Your task to perform on an android device: find photos in the google photos app Image 0: 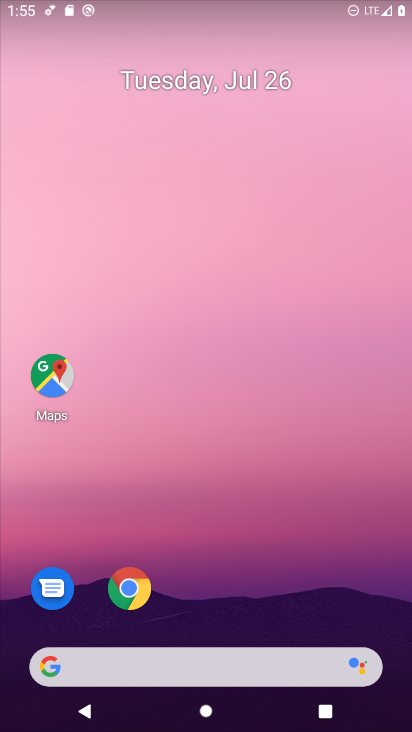
Step 0: drag from (231, 640) to (203, 255)
Your task to perform on an android device: find photos in the google photos app Image 1: 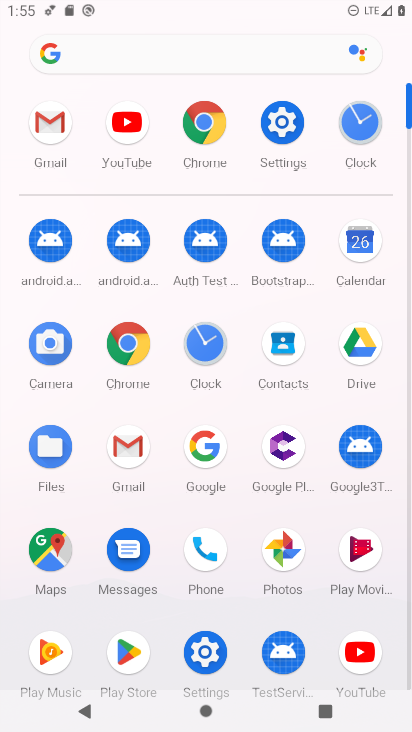
Step 1: click (287, 556)
Your task to perform on an android device: find photos in the google photos app Image 2: 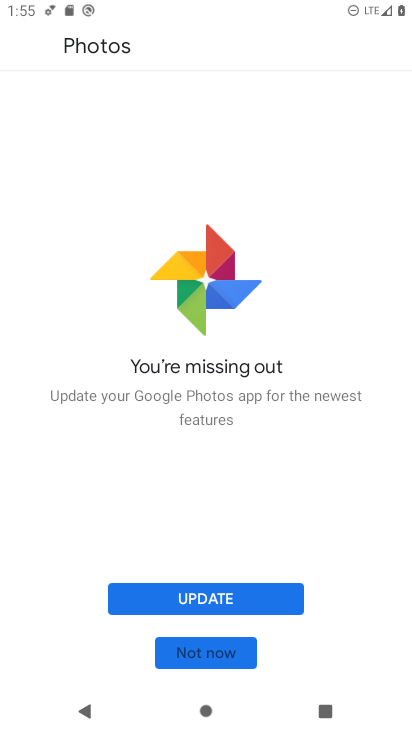
Step 2: click (167, 654)
Your task to perform on an android device: find photos in the google photos app Image 3: 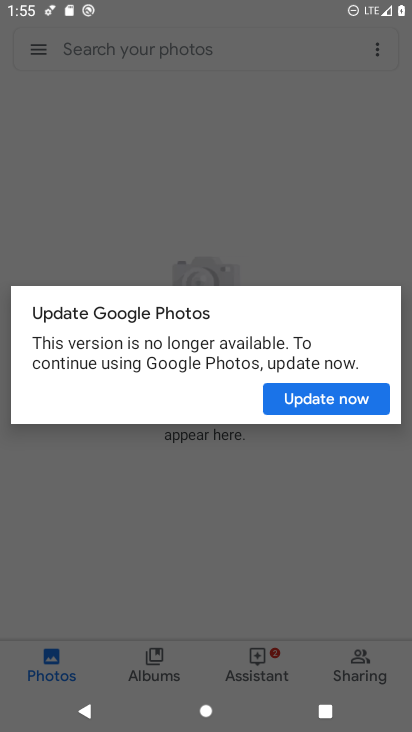
Step 3: click (296, 402)
Your task to perform on an android device: find photos in the google photos app Image 4: 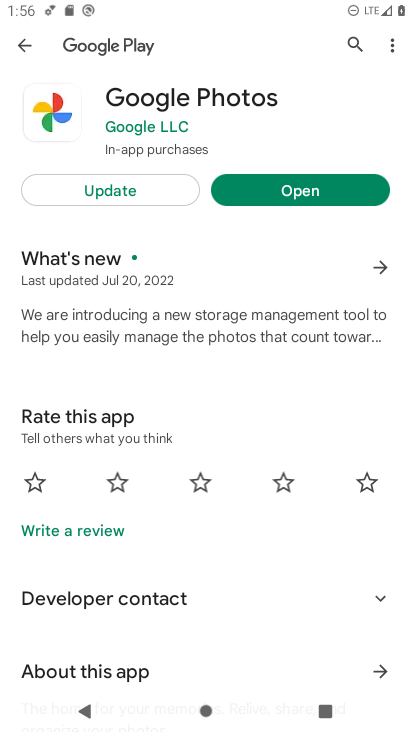
Step 4: click (140, 192)
Your task to perform on an android device: find photos in the google photos app Image 5: 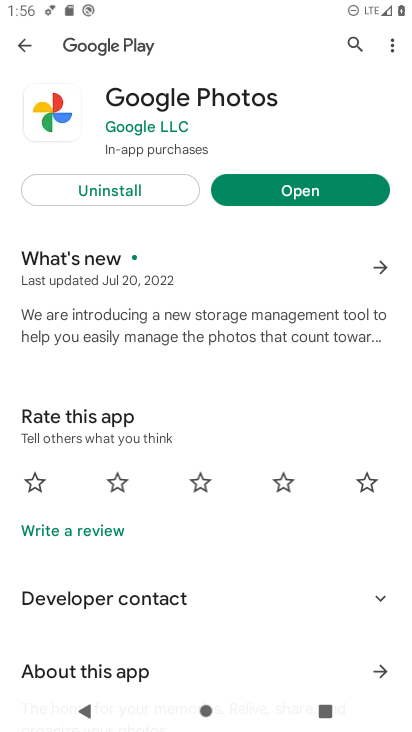
Step 5: click (297, 193)
Your task to perform on an android device: find photos in the google photos app Image 6: 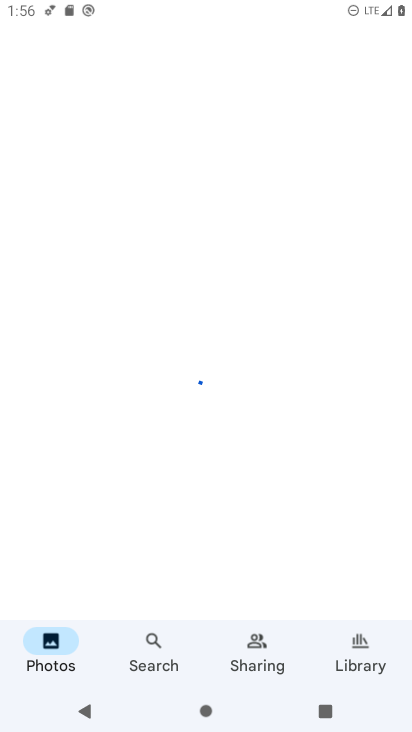
Step 6: task complete